Your task to perform on an android device: Open the Play Movies app and select the watchlist tab. Image 0: 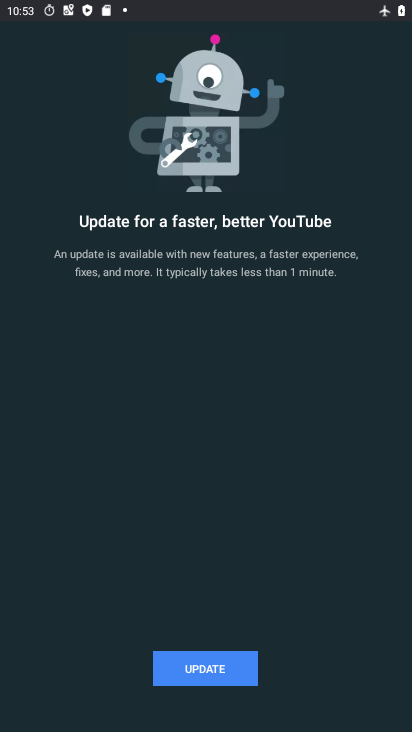
Step 0: press home button
Your task to perform on an android device: Open the Play Movies app and select the watchlist tab. Image 1: 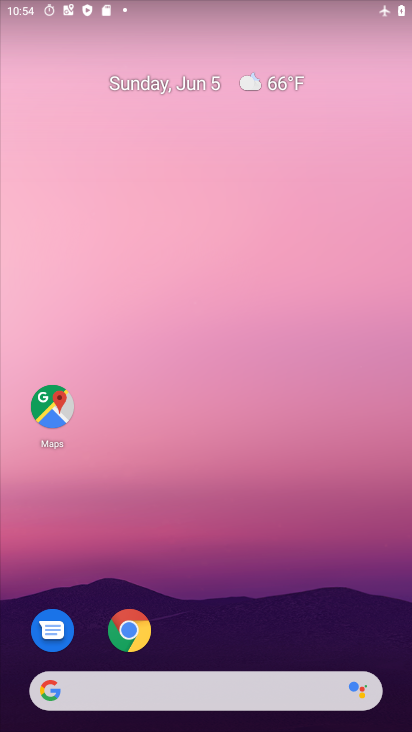
Step 1: drag from (218, 314) to (218, 104)
Your task to perform on an android device: Open the Play Movies app and select the watchlist tab. Image 2: 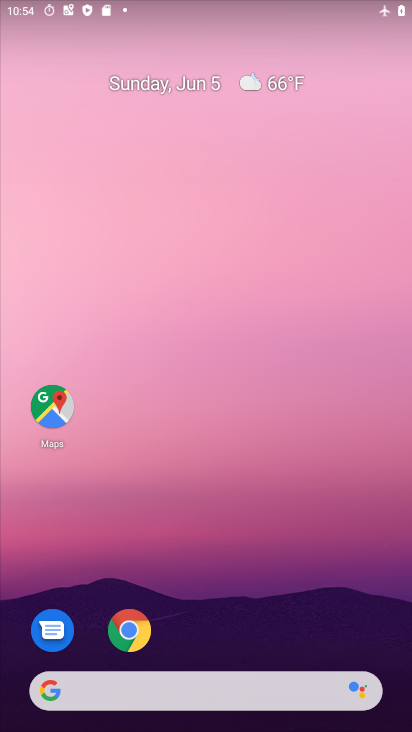
Step 2: drag from (219, 729) to (230, 75)
Your task to perform on an android device: Open the Play Movies app and select the watchlist tab. Image 3: 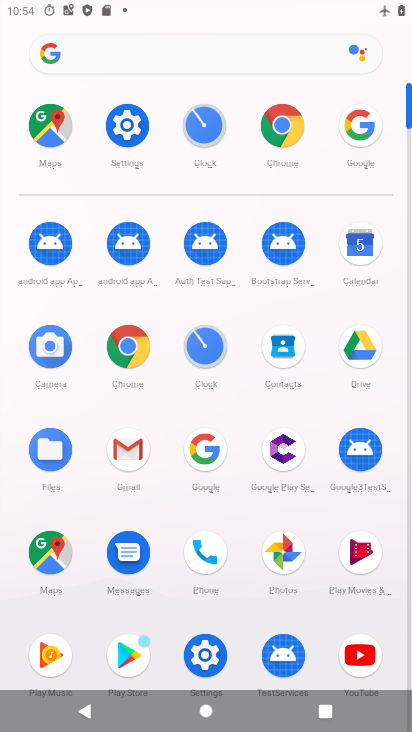
Step 3: click (360, 558)
Your task to perform on an android device: Open the Play Movies app and select the watchlist tab. Image 4: 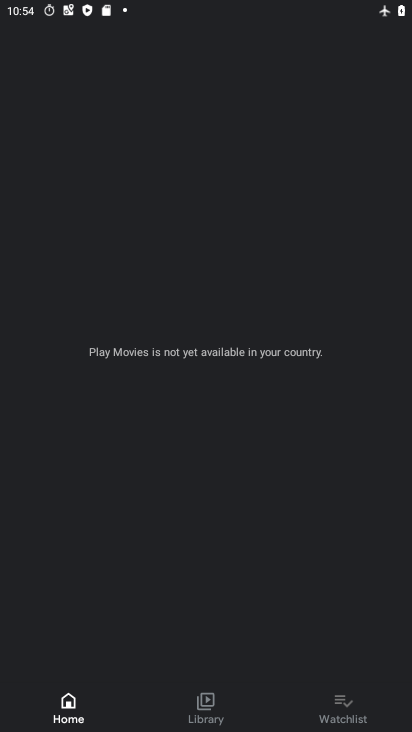
Step 4: click (342, 706)
Your task to perform on an android device: Open the Play Movies app and select the watchlist tab. Image 5: 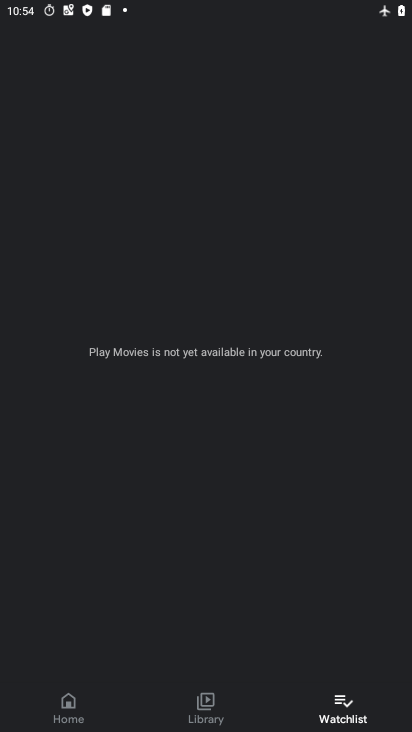
Step 5: task complete